Your task to perform on an android device: open app "Chime – Mobile Banking" Image 0: 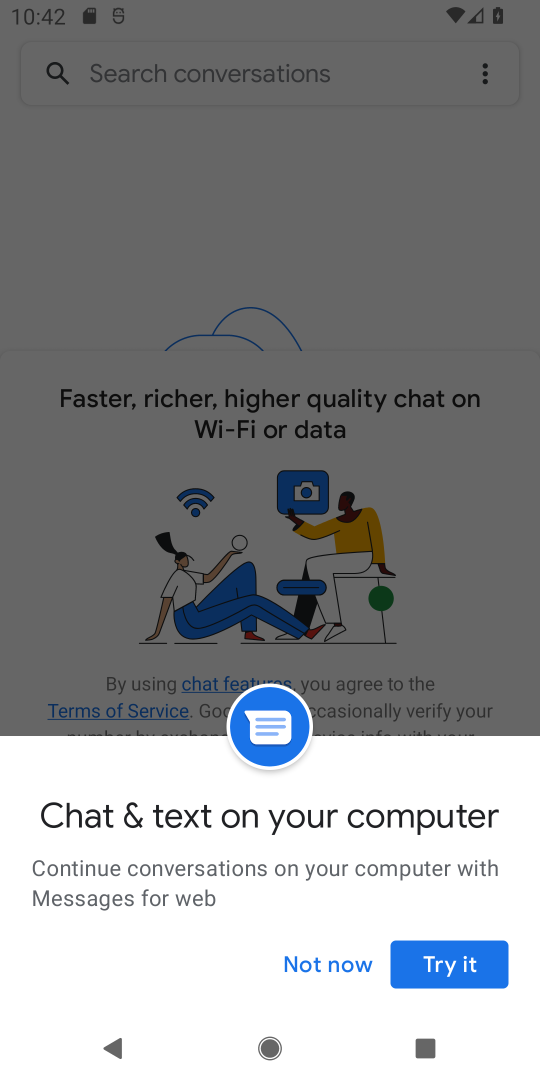
Step 0: press home button
Your task to perform on an android device: open app "Chime – Mobile Banking" Image 1: 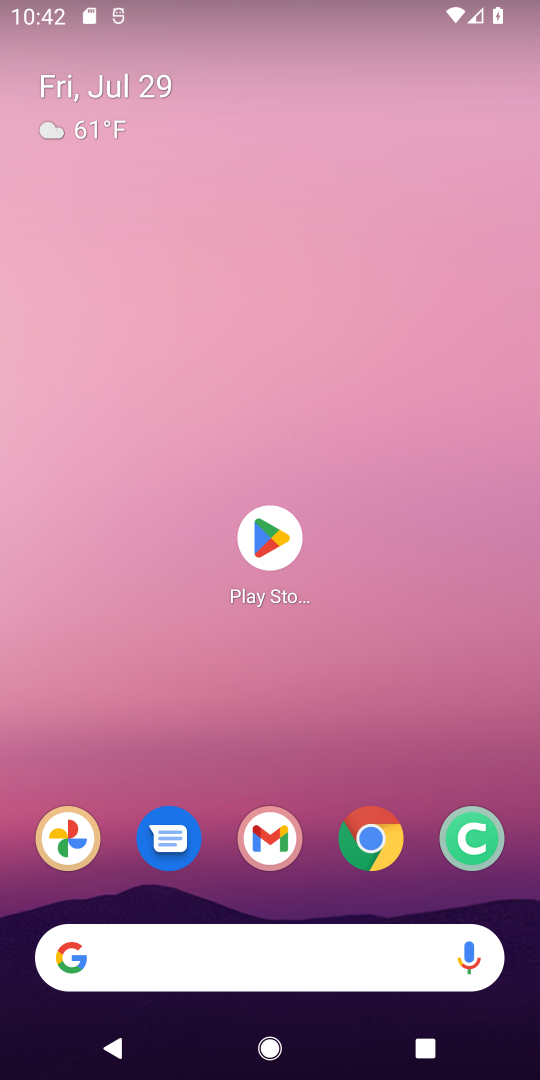
Step 1: click (264, 532)
Your task to perform on an android device: open app "Chime – Mobile Banking" Image 2: 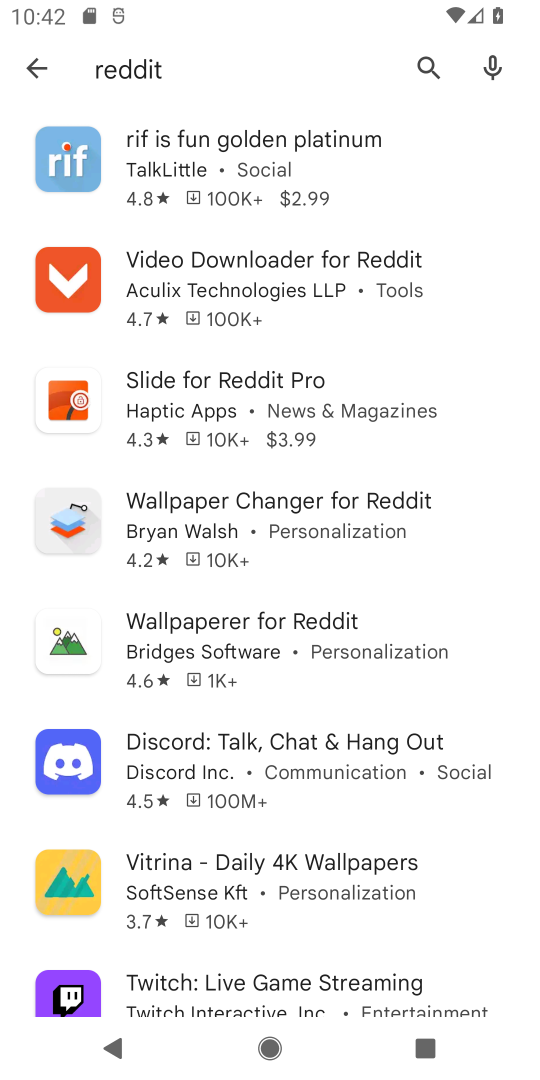
Step 2: click (419, 63)
Your task to perform on an android device: open app "Chime – Mobile Banking" Image 3: 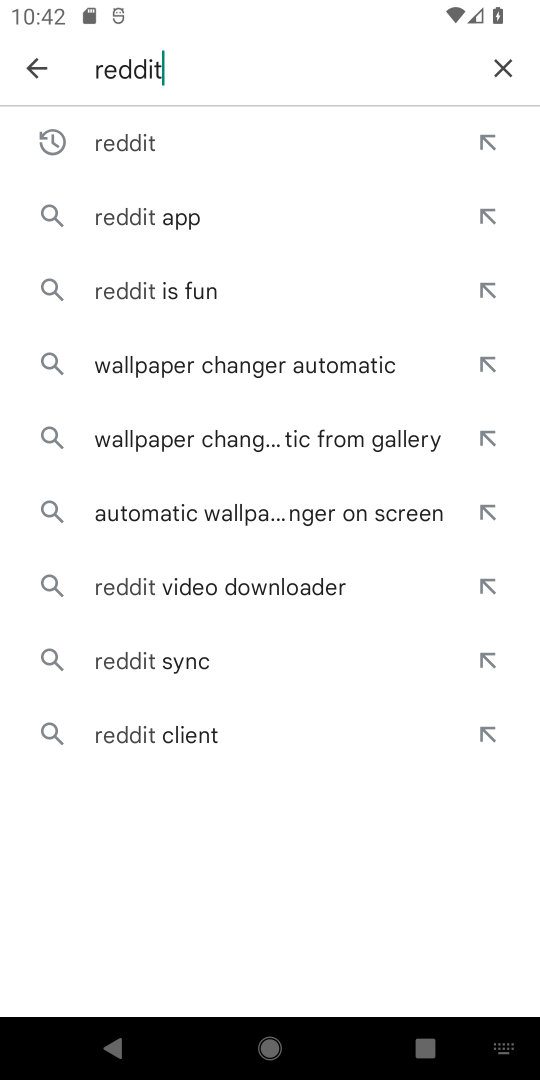
Step 3: click (504, 63)
Your task to perform on an android device: open app "Chime – Mobile Banking" Image 4: 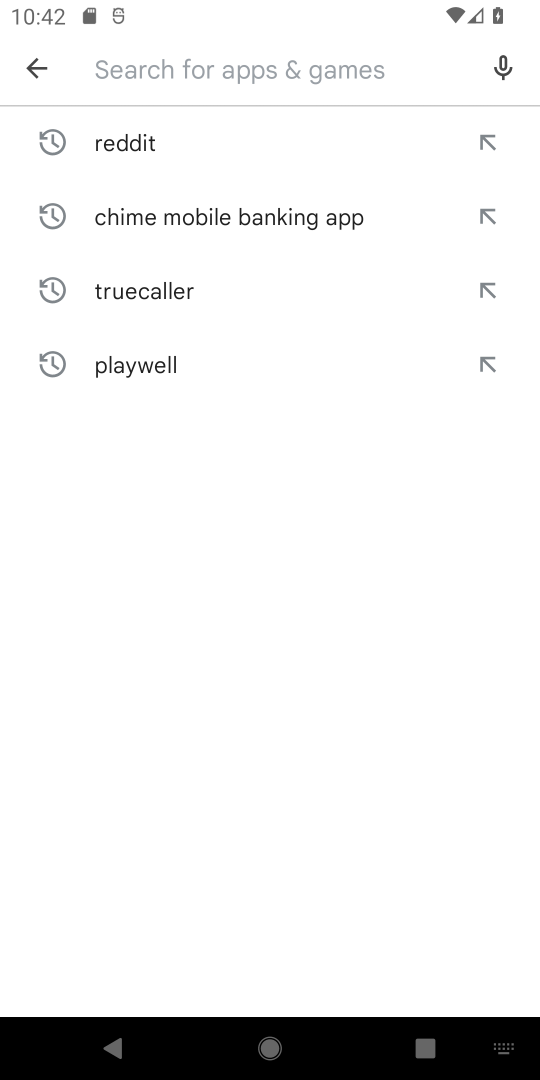
Step 4: type "Chime – Mobile Bankin"
Your task to perform on an android device: open app "Chime – Mobile Banking" Image 5: 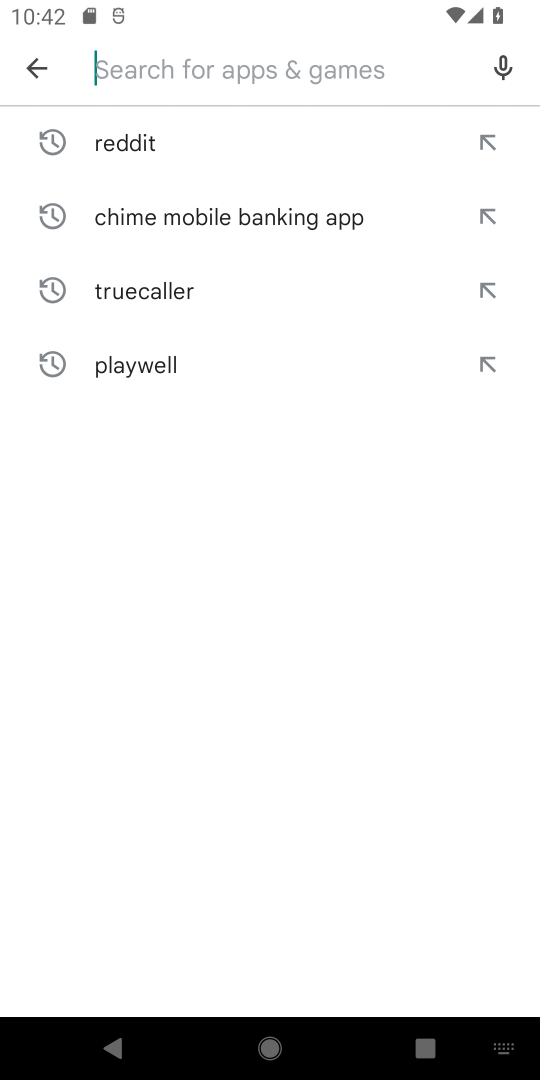
Step 5: type "chime- mobile banking"
Your task to perform on an android device: open app "Chime – Mobile Banking" Image 6: 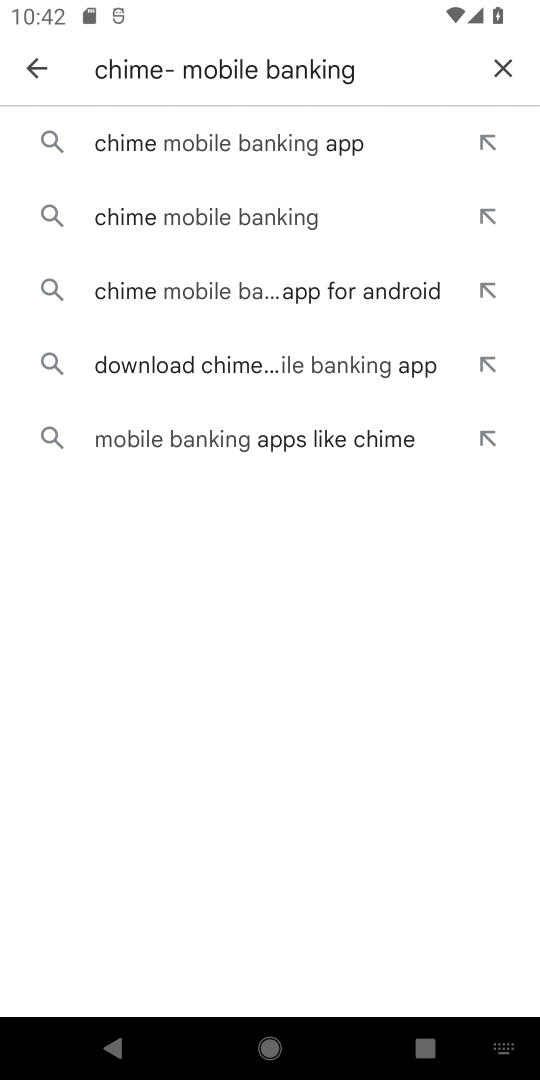
Step 6: click (252, 143)
Your task to perform on an android device: open app "Chime – Mobile Banking" Image 7: 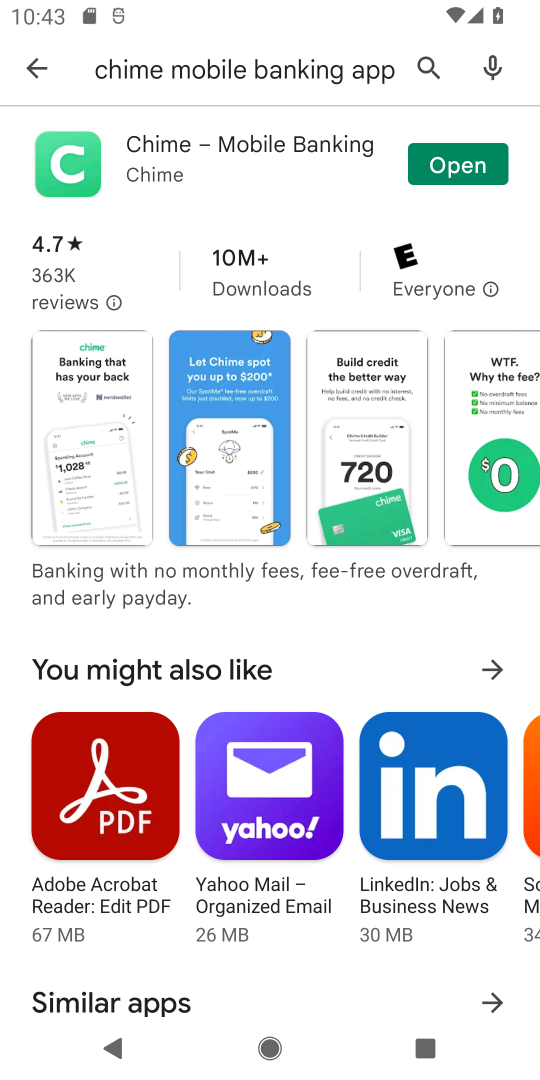
Step 7: click (440, 162)
Your task to perform on an android device: open app "Chime – Mobile Banking" Image 8: 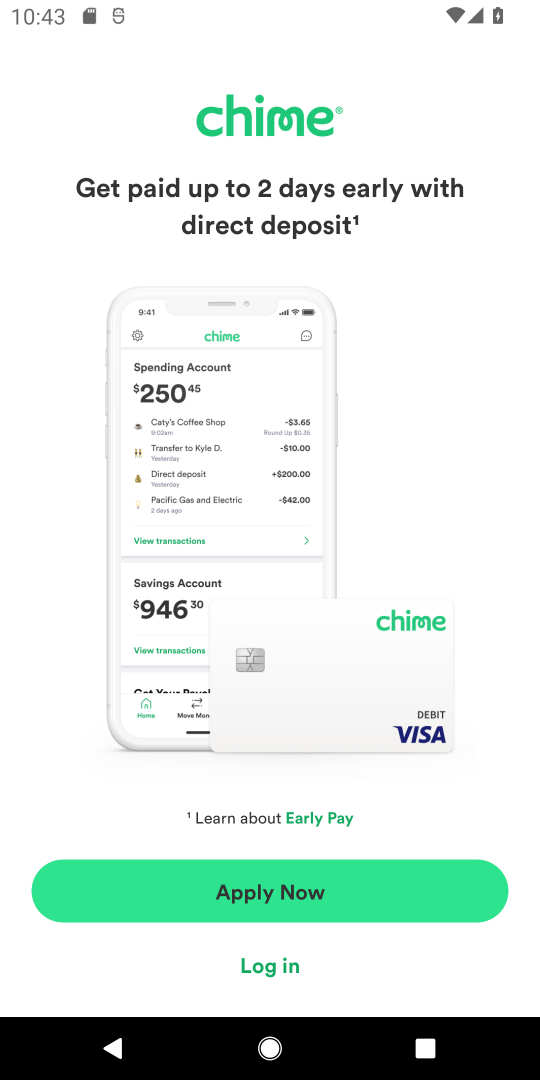
Step 8: task complete